Your task to perform on an android device: create a new album in the google photos Image 0: 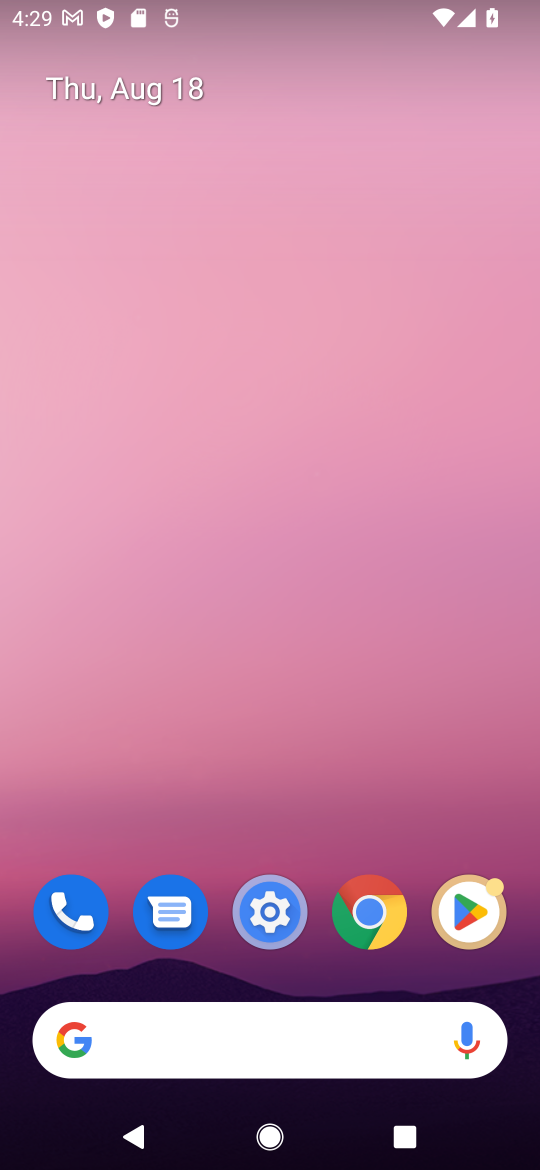
Step 0: drag from (335, 744) to (338, 260)
Your task to perform on an android device: create a new album in the google photos Image 1: 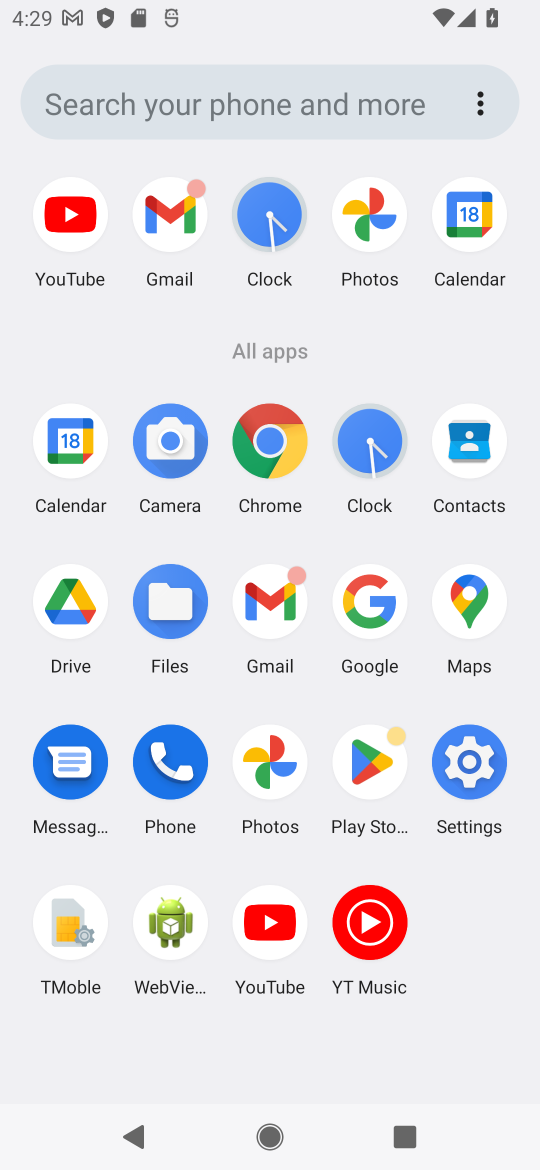
Step 1: click (259, 780)
Your task to perform on an android device: create a new album in the google photos Image 2: 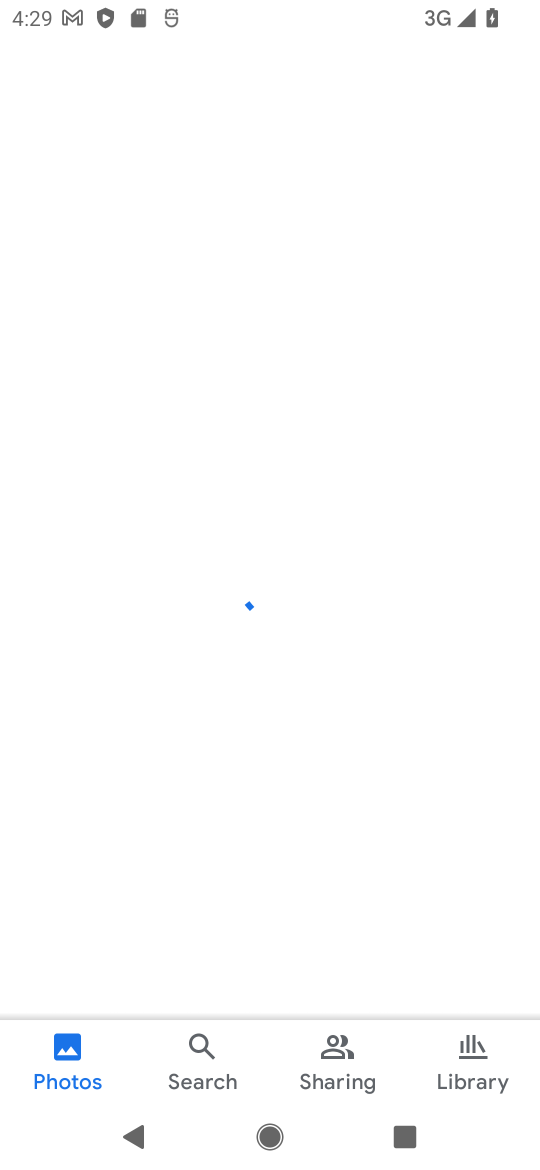
Step 2: task complete